Your task to perform on an android device: What is the recent news? Image 0: 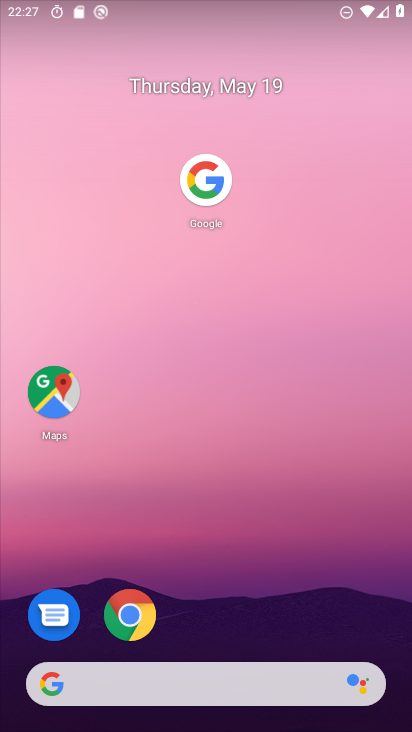
Step 0: drag from (230, 606) to (223, 41)
Your task to perform on an android device: What is the recent news? Image 1: 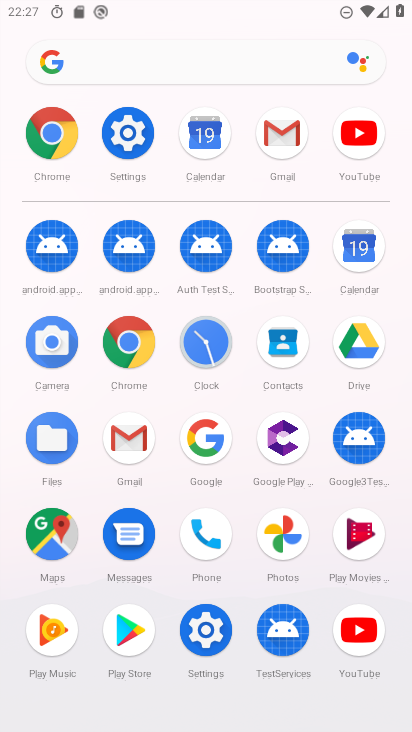
Step 1: click (214, 436)
Your task to perform on an android device: What is the recent news? Image 2: 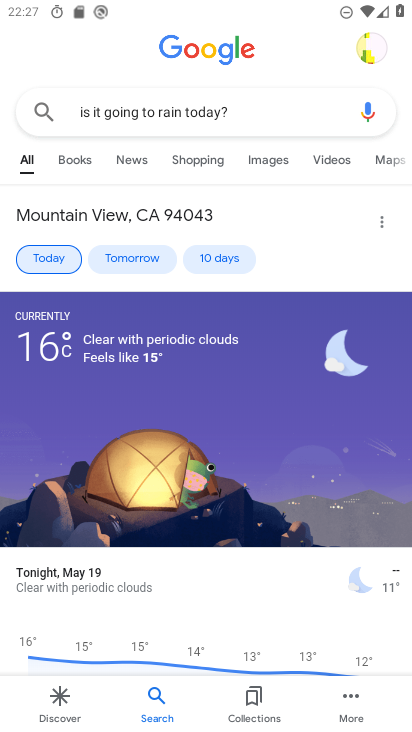
Step 2: click (263, 104)
Your task to perform on an android device: What is the recent news? Image 3: 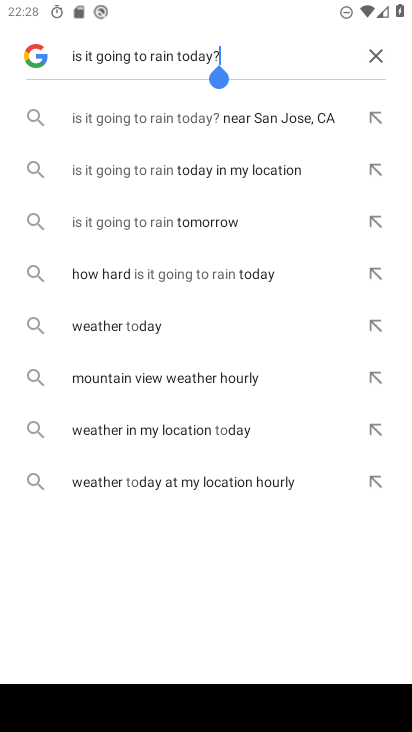
Step 3: click (366, 59)
Your task to perform on an android device: What is the recent news? Image 4: 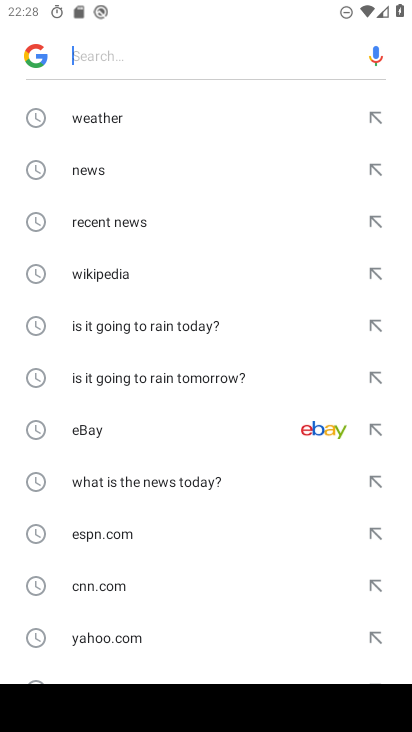
Step 4: click (142, 220)
Your task to perform on an android device: What is the recent news? Image 5: 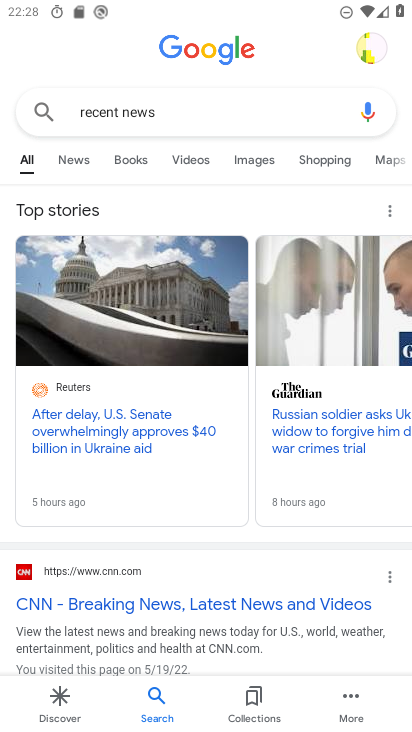
Step 5: task complete